Your task to perform on an android device: Show me recent news Image 0: 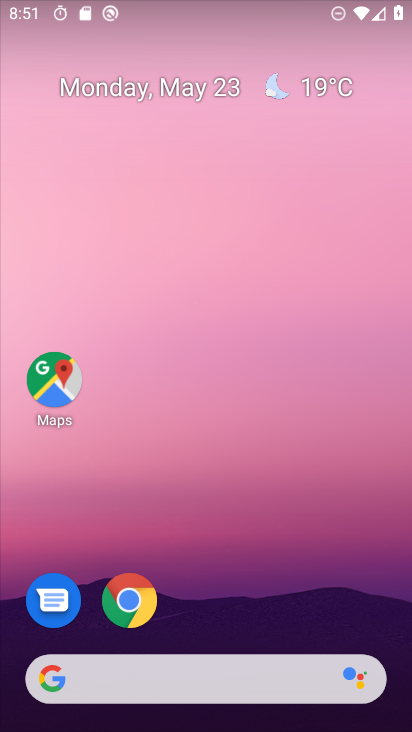
Step 0: click (209, 673)
Your task to perform on an android device: Show me recent news Image 1: 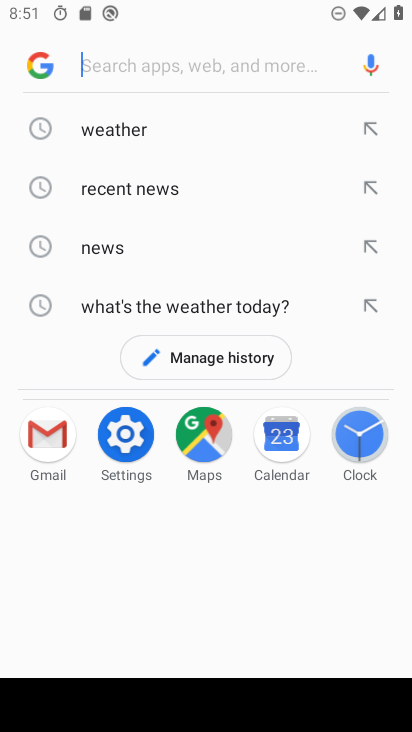
Step 1: click (86, 239)
Your task to perform on an android device: Show me recent news Image 2: 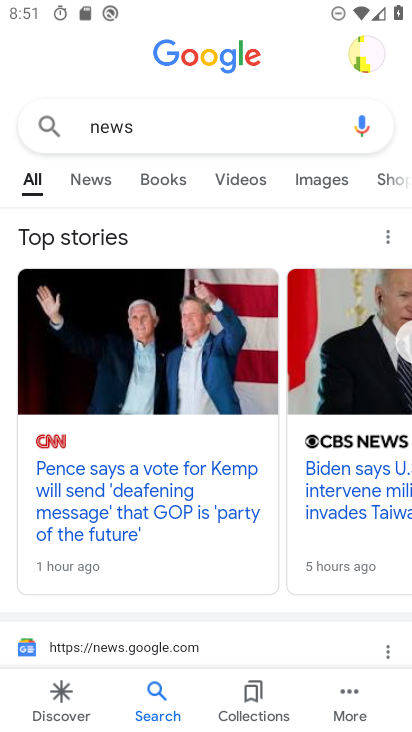
Step 2: task complete